Your task to perform on an android device: Open Amazon Image 0: 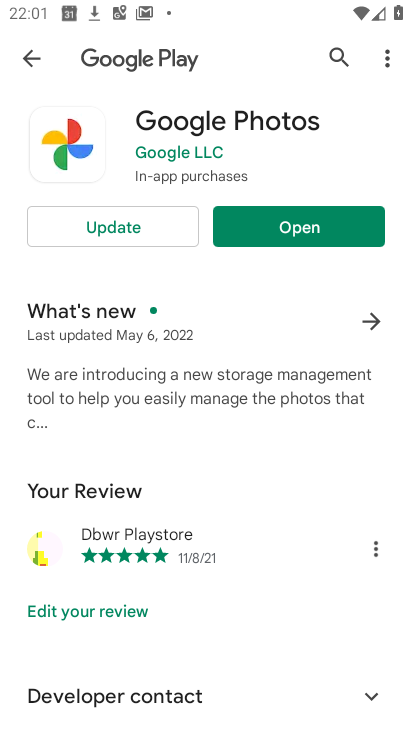
Step 0: press home button
Your task to perform on an android device: Open Amazon Image 1: 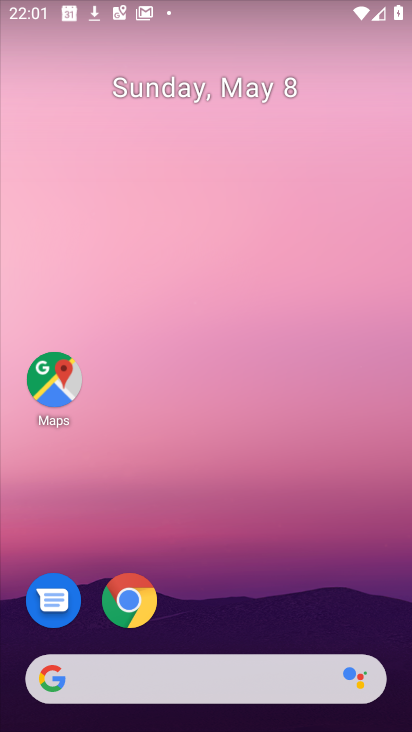
Step 1: drag from (265, 702) to (242, 152)
Your task to perform on an android device: Open Amazon Image 2: 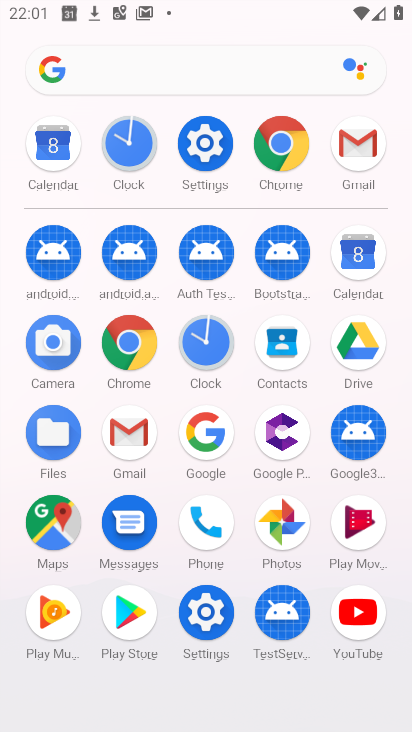
Step 2: click (259, 149)
Your task to perform on an android device: Open Amazon Image 3: 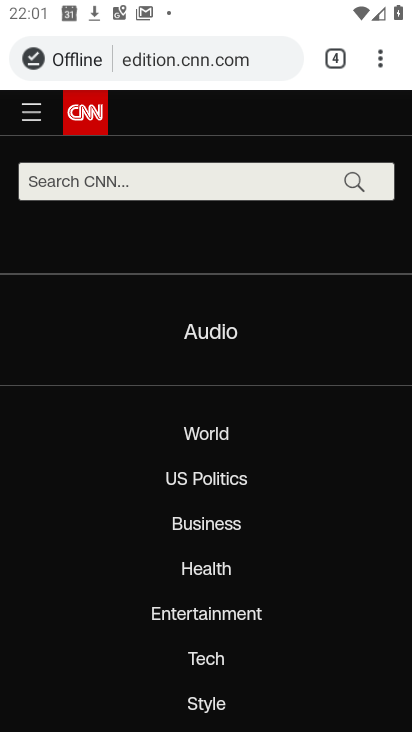
Step 3: click (332, 63)
Your task to perform on an android device: Open Amazon Image 4: 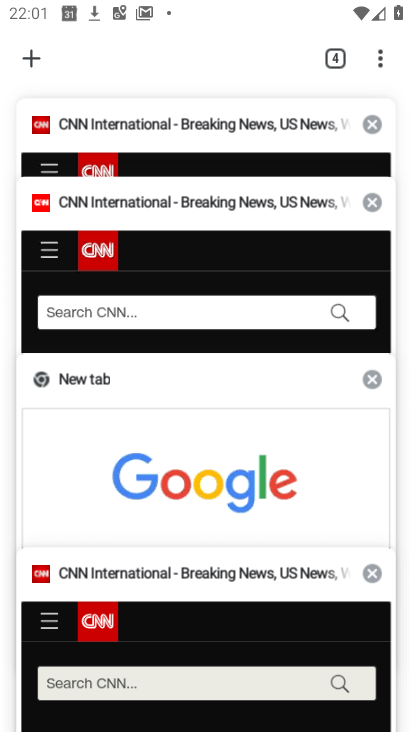
Step 4: click (26, 62)
Your task to perform on an android device: Open Amazon Image 5: 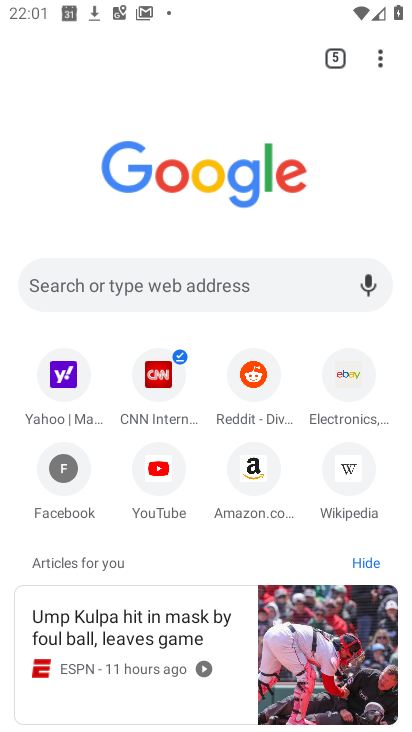
Step 5: click (241, 463)
Your task to perform on an android device: Open Amazon Image 6: 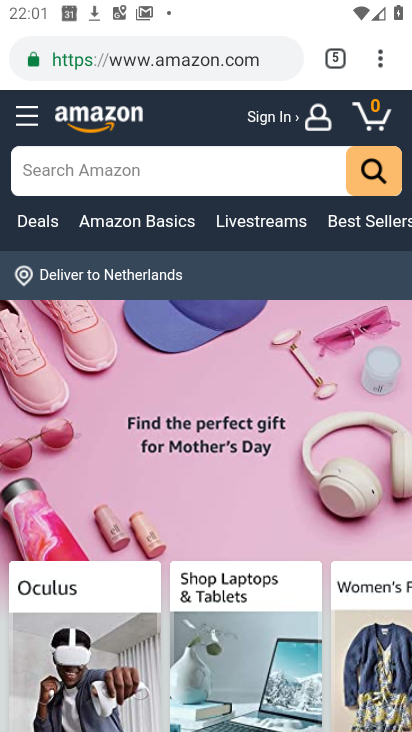
Step 6: task complete